Your task to perform on an android device: move a message to another label in the gmail app Image 0: 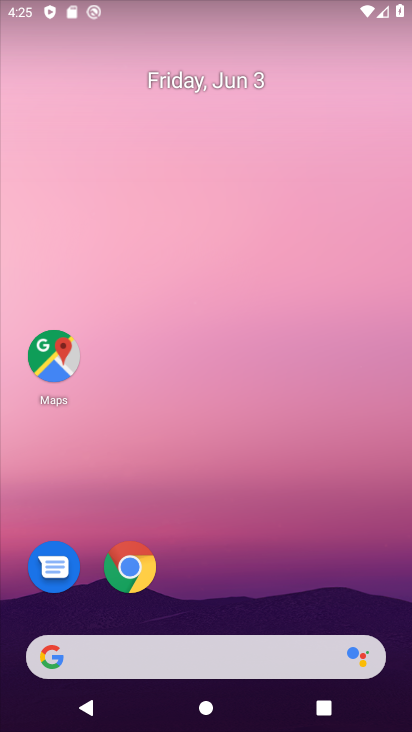
Step 0: drag from (283, 531) to (233, 41)
Your task to perform on an android device: move a message to another label in the gmail app Image 1: 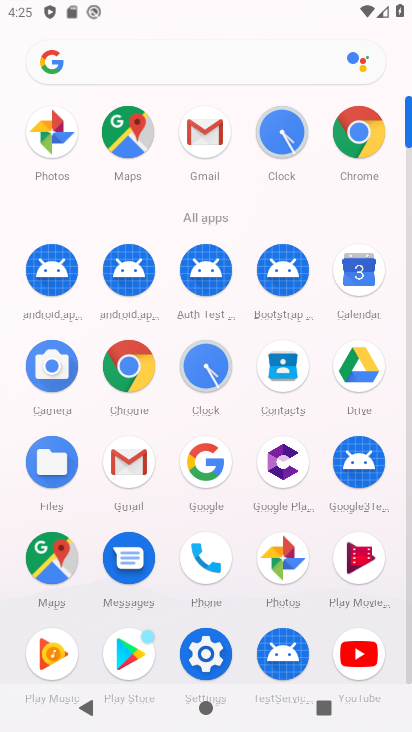
Step 1: click (207, 131)
Your task to perform on an android device: move a message to another label in the gmail app Image 2: 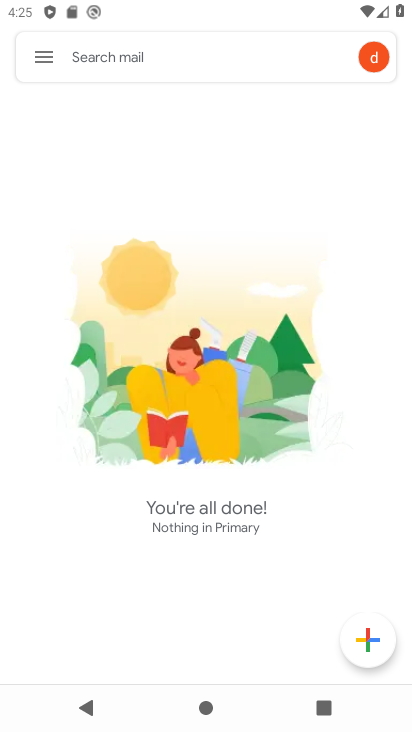
Step 2: click (53, 66)
Your task to perform on an android device: move a message to another label in the gmail app Image 3: 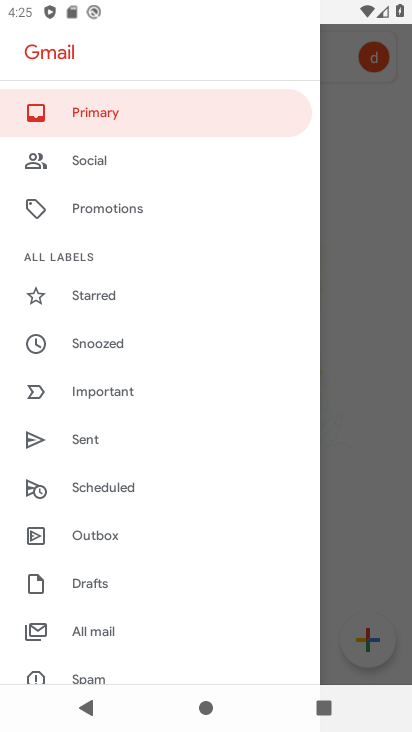
Step 3: drag from (107, 290) to (142, 323)
Your task to perform on an android device: move a message to another label in the gmail app Image 4: 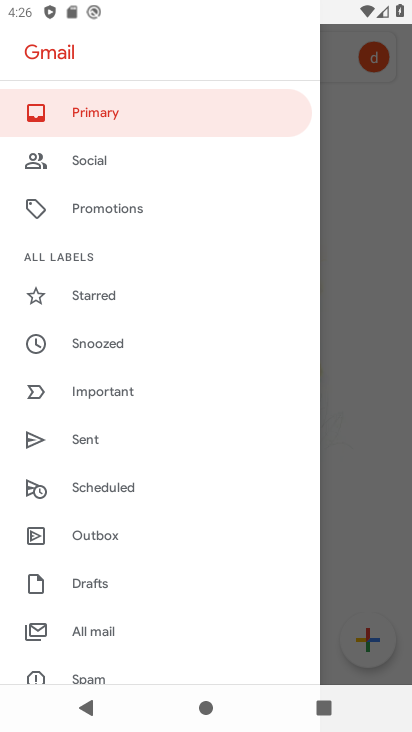
Step 4: click (100, 425)
Your task to perform on an android device: move a message to another label in the gmail app Image 5: 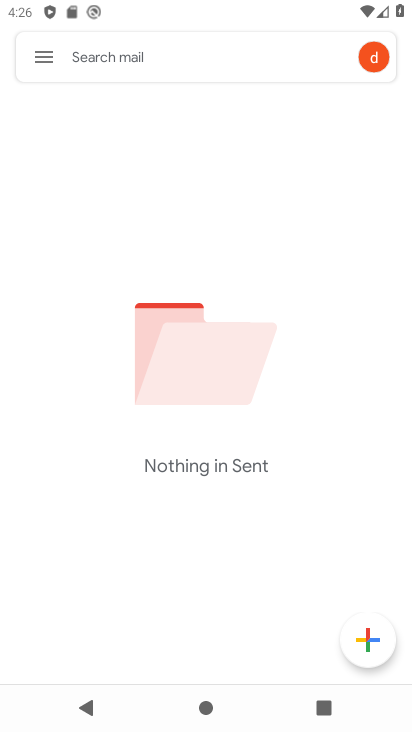
Step 5: task complete